Your task to perform on an android device: What is the recent news? Image 0: 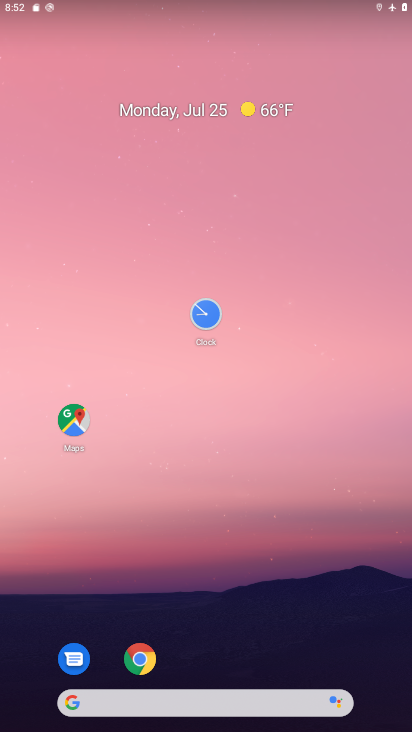
Step 0: drag from (244, 629) to (202, 204)
Your task to perform on an android device: What is the recent news? Image 1: 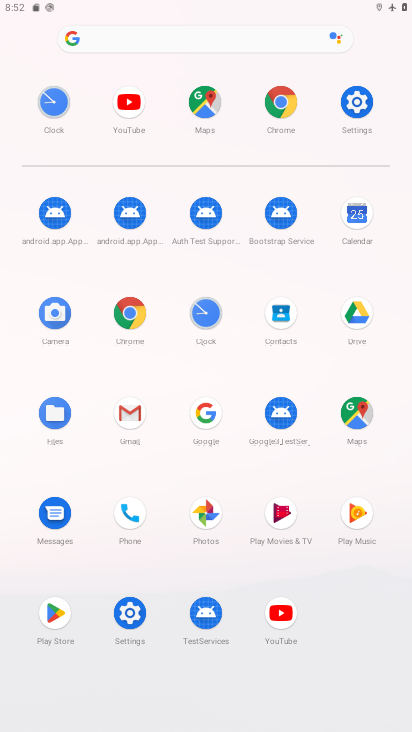
Step 1: drag from (299, 635) to (283, 184)
Your task to perform on an android device: What is the recent news? Image 2: 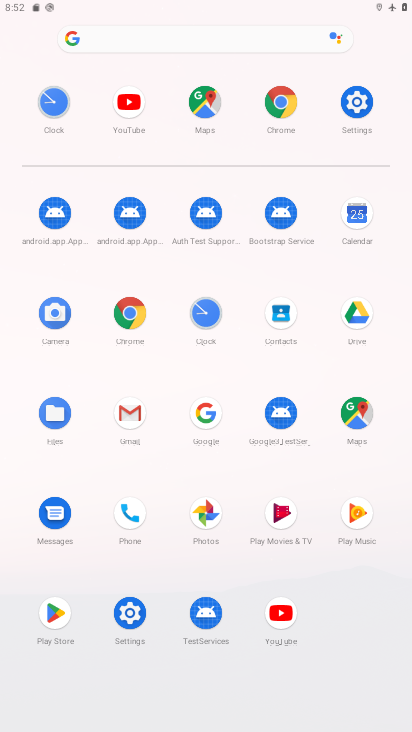
Step 2: click (280, 100)
Your task to perform on an android device: What is the recent news? Image 3: 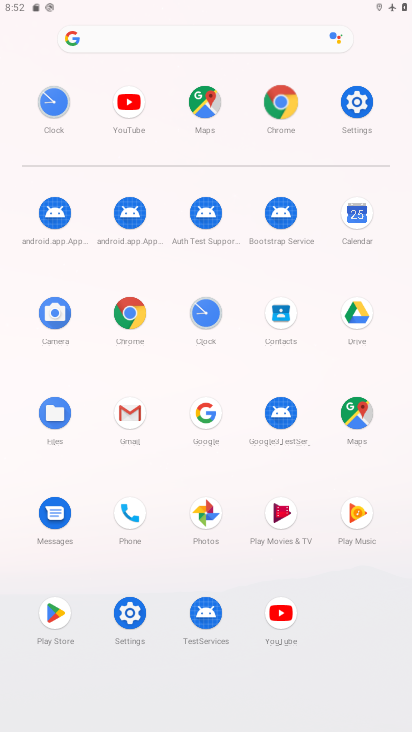
Step 3: click (279, 100)
Your task to perform on an android device: What is the recent news? Image 4: 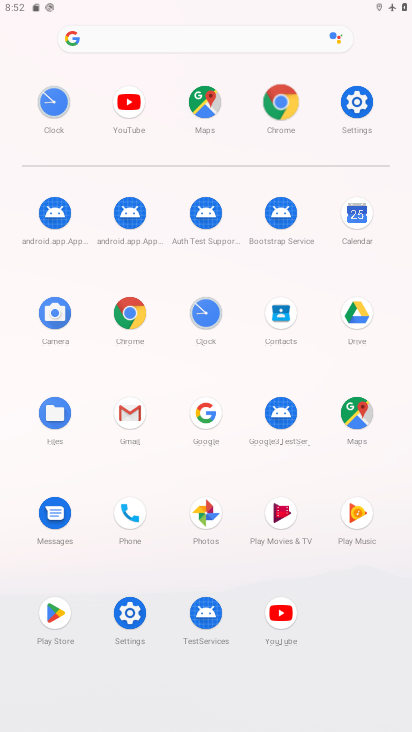
Step 4: click (279, 100)
Your task to perform on an android device: What is the recent news? Image 5: 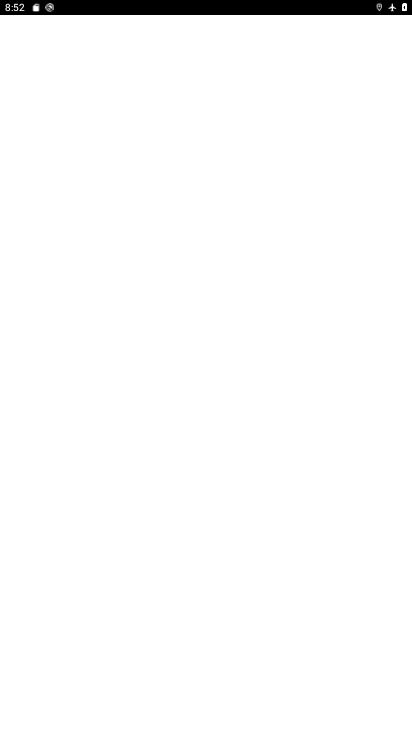
Step 5: click (279, 100)
Your task to perform on an android device: What is the recent news? Image 6: 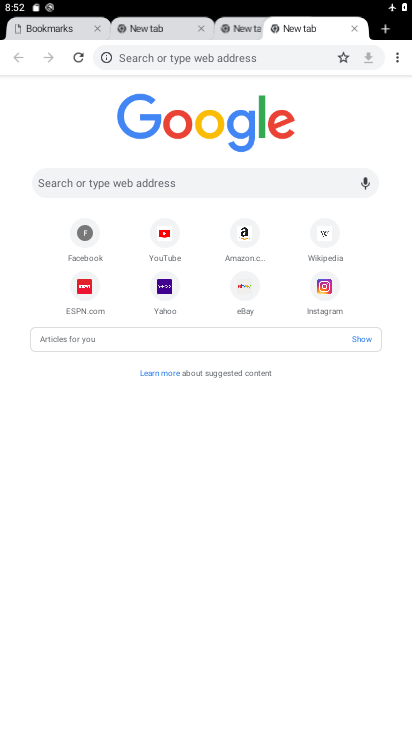
Step 6: click (394, 58)
Your task to perform on an android device: What is the recent news? Image 7: 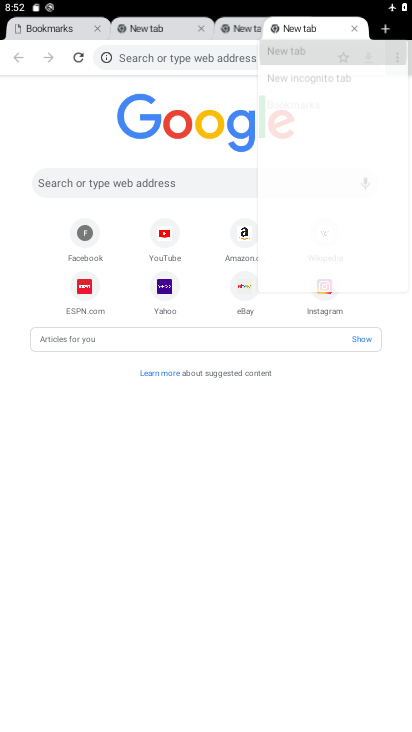
Step 7: click (393, 63)
Your task to perform on an android device: What is the recent news? Image 8: 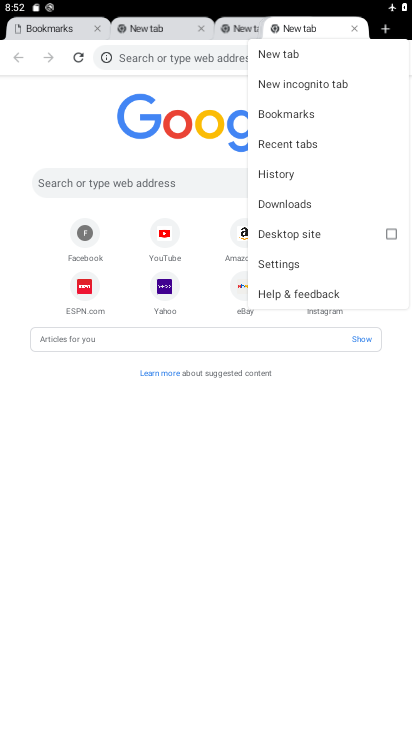
Step 8: click (190, 476)
Your task to perform on an android device: What is the recent news? Image 9: 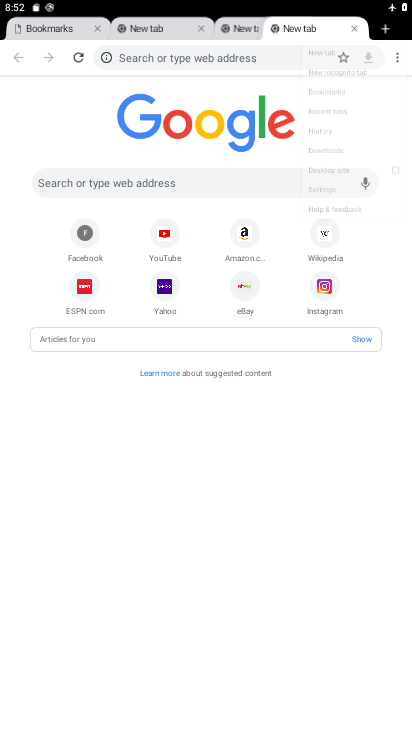
Step 9: click (190, 475)
Your task to perform on an android device: What is the recent news? Image 10: 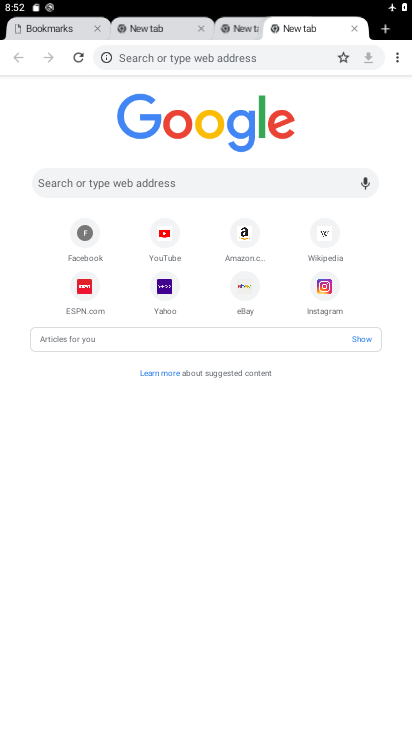
Step 10: click (165, 361)
Your task to perform on an android device: What is the recent news? Image 11: 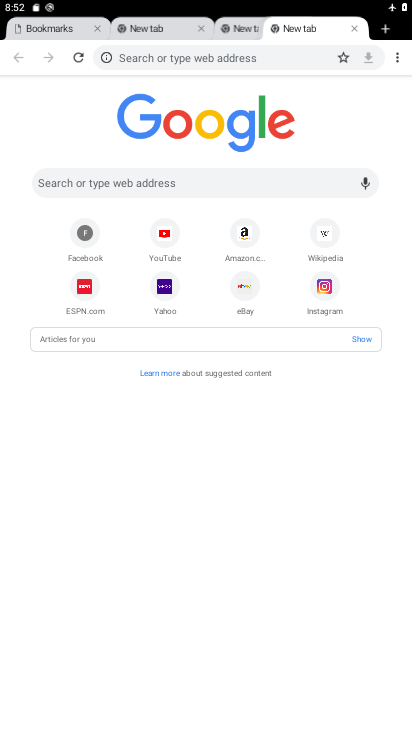
Step 11: click (164, 364)
Your task to perform on an android device: What is the recent news? Image 12: 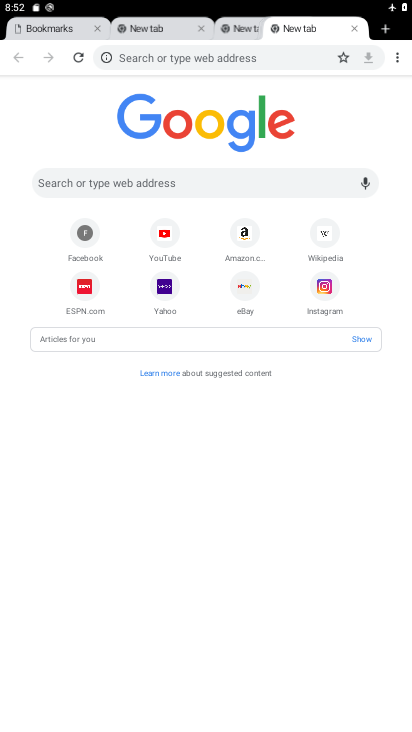
Step 12: click (164, 364)
Your task to perform on an android device: What is the recent news? Image 13: 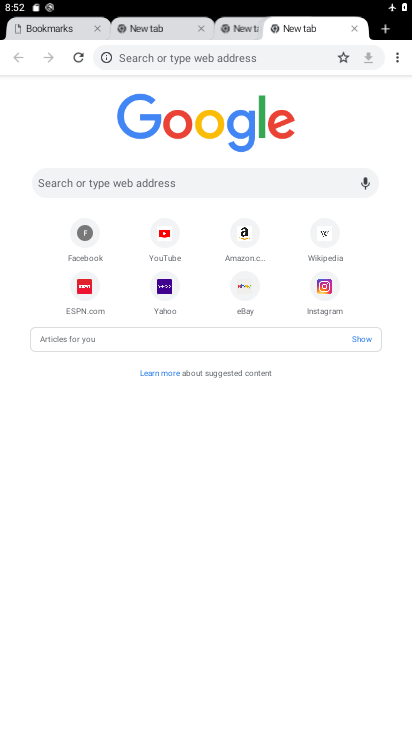
Step 13: click (164, 364)
Your task to perform on an android device: What is the recent news? Image 14: 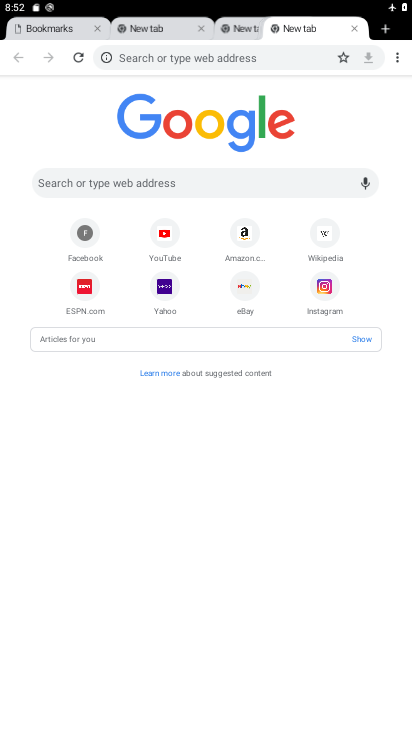
Step 14: click (182, 365)
Your task to perform on an android device: What is the recent news? Image 15: 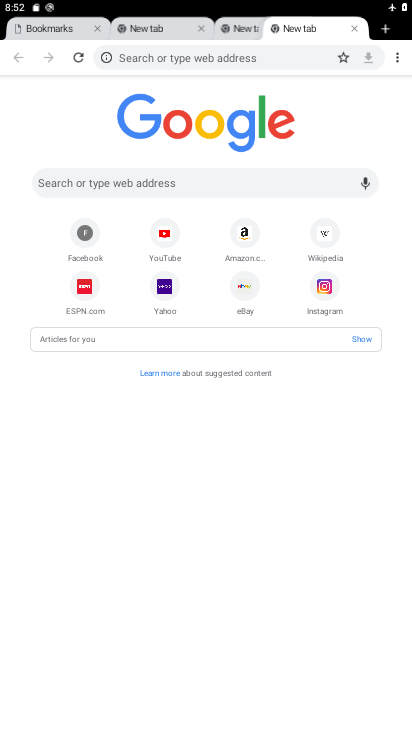
Step 15: click (189, 365)
Your task to perform on an android device: What is the recent news? Image 16: 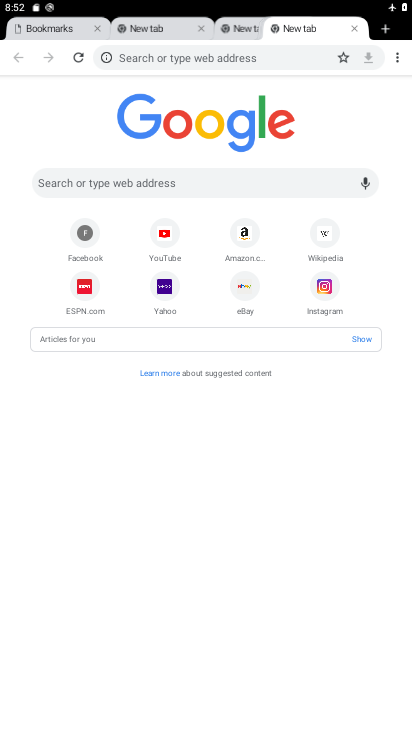
Step 16: drag from (396, 58) to (271, 59)
Your task to perform on an android device: What is the recent news? Image 17: 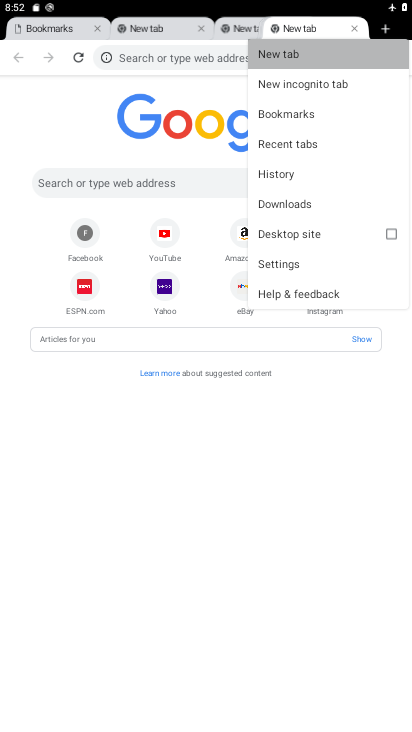
Step 17: click (272, 56)
Your task to perform on an android device: What is the recent news? Image 18: 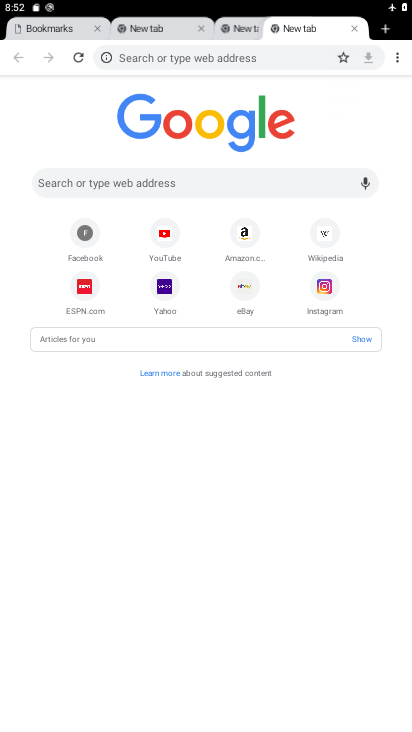
Step 18: click (277, 55)
Your task to perform on an android device: What is the recent news? Image 19: 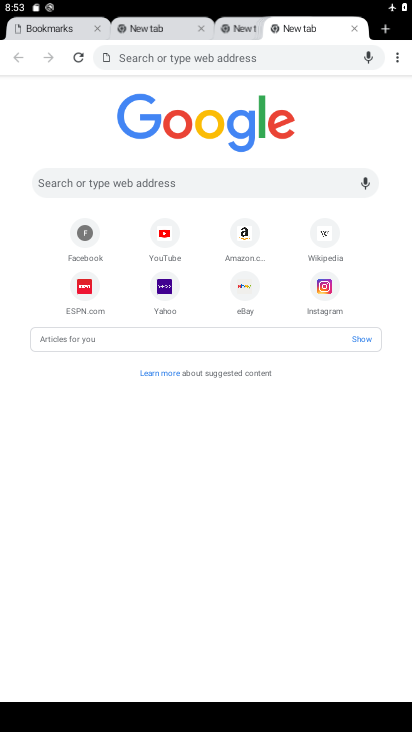
Step 19: click (356, 26)
Your task to perform on an android device: What is the recent news? Image 20: 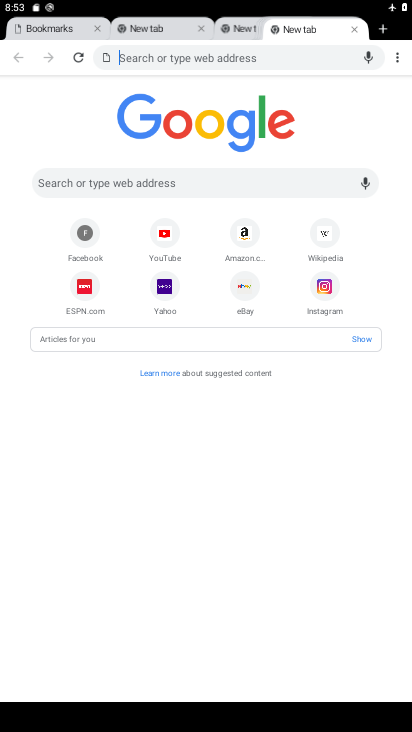
Step 20: click (357, 26)
Your task to perform on an android device: What is the recent news? Image 21: 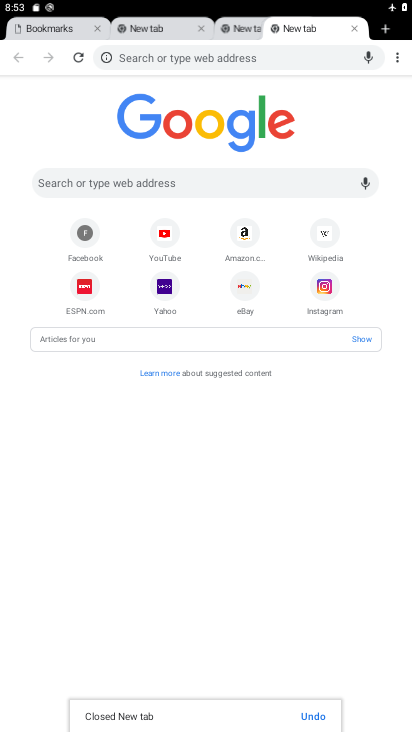
Step 21: click (170, 372)
Your task to perform on an android device: What is the recent news? Image 22: 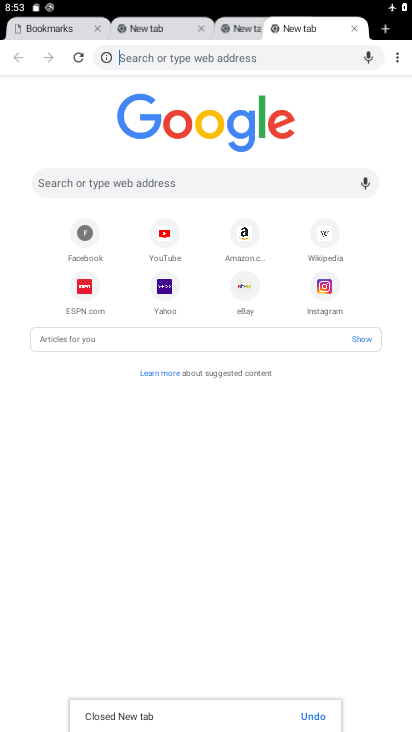
Step 22: click (174, 366)
Your task to perform on an android device: What is the recent news? Image 23: 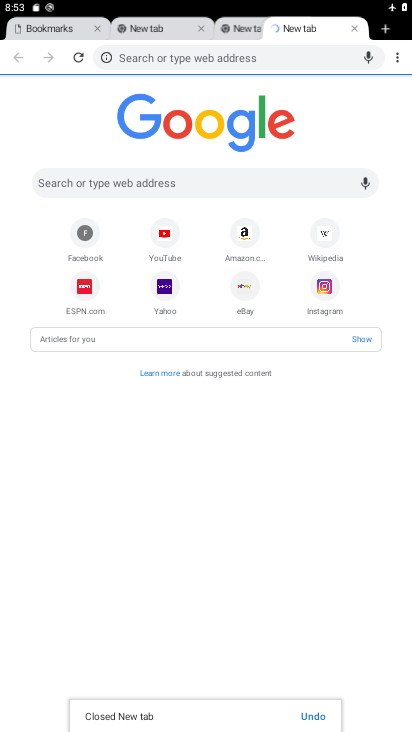
Step 23: click (179, 368)
Your task to perform on an android device: What is the recent news? Image 24: 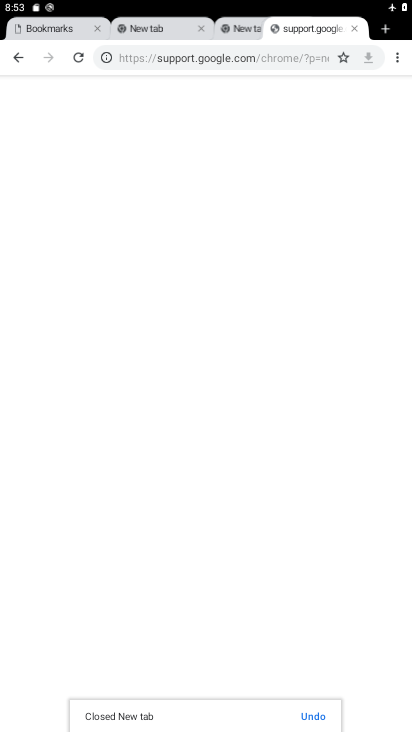
Step 24: click (376, 324)
Your task to perform on an android device: What is the recent news? Image 25: 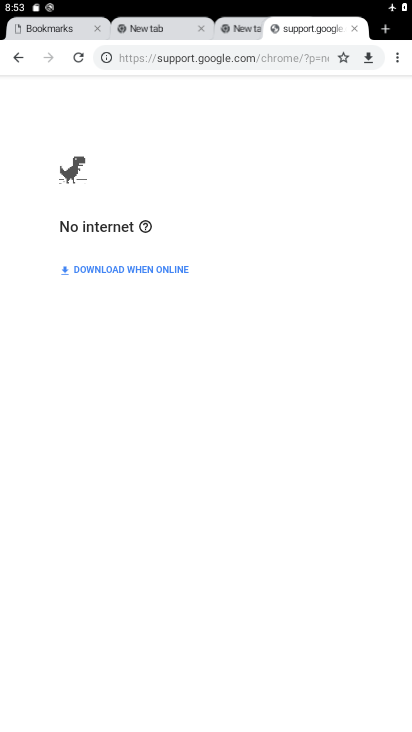
Step 25: click (144, 31)
Your task to perform on an android device: What is the recent news? Image 26: 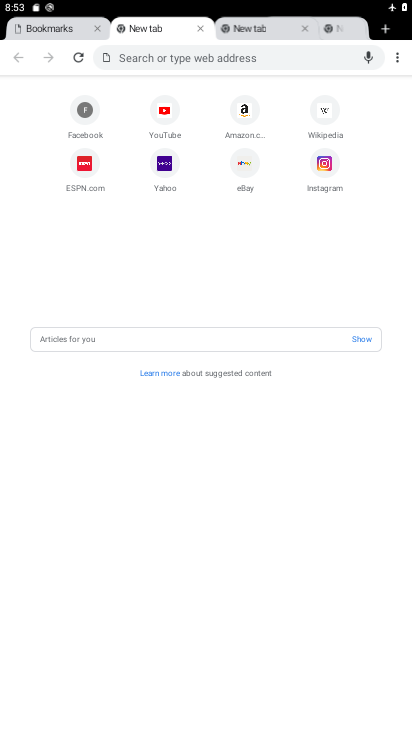
Step 26: click (370, 334)
Your task to perform on an android device: What is the recent news? Image 27: 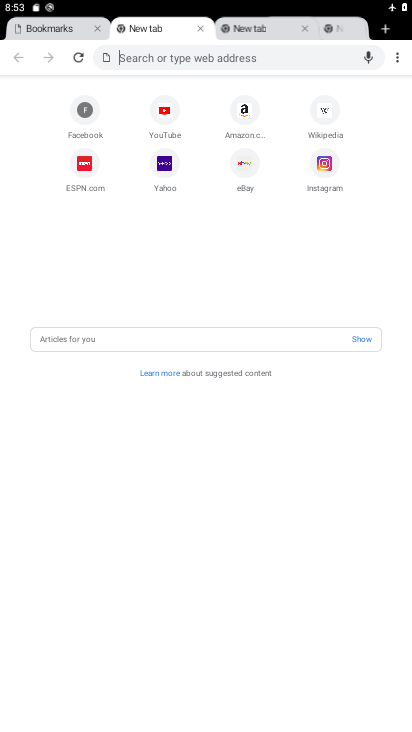
Step 27: click (365, 331)
Your task to perform on an android device: What is the recent news? Image 28: 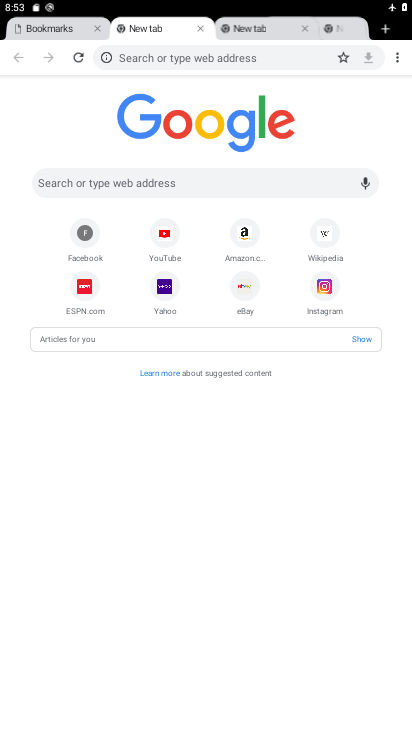
Step 28: click (358, 333)
Your task to perform on an android device: What is the recent news? Image 29: 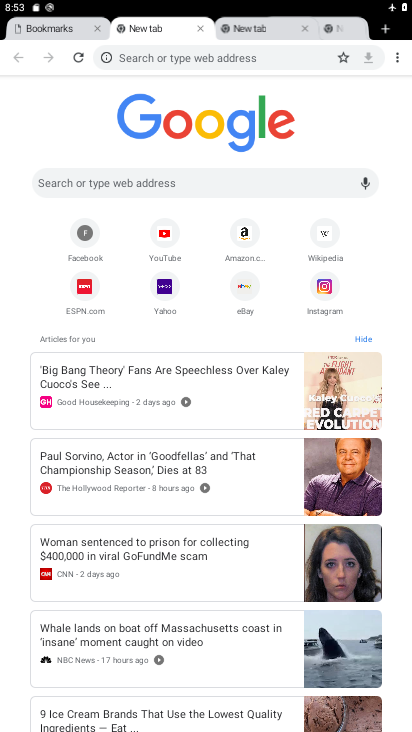
Step 29: task complete